Your task to perform on an android device: set an alarm Image 0: 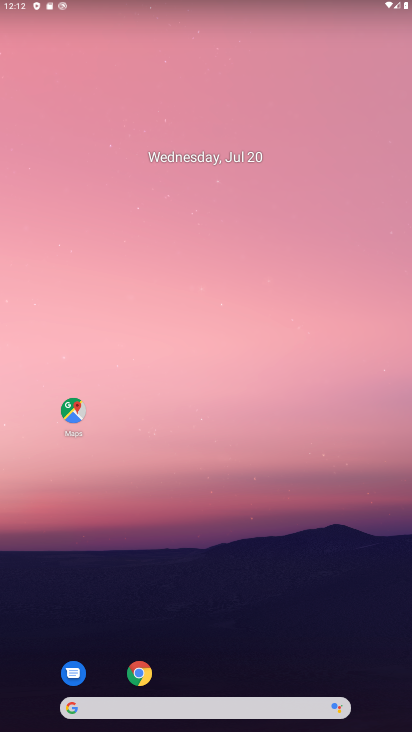
Step 0: drag from (217, 687) to (190, 166)
Your task to perform on an android device: set an alarm Image 1: 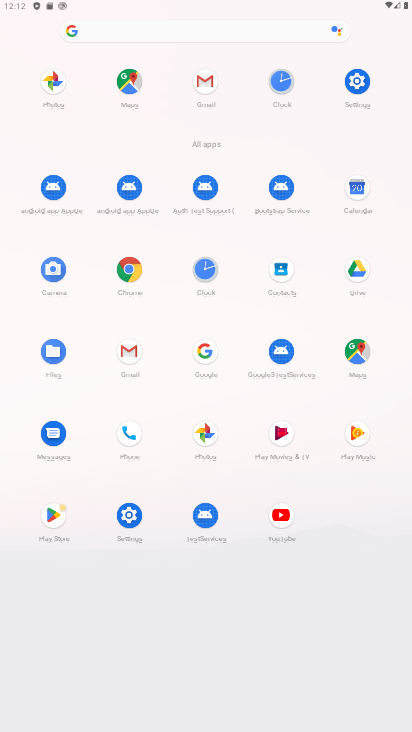
Step 1: click (206, 267)
Your task to perform on an android device: set an alarm Image 2: 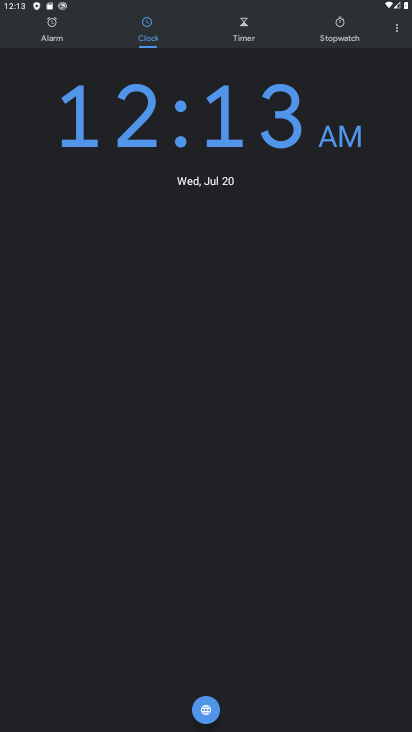
Step 2: click (52, 35)
Your task to perform on an android device: set an alarm Image 3: 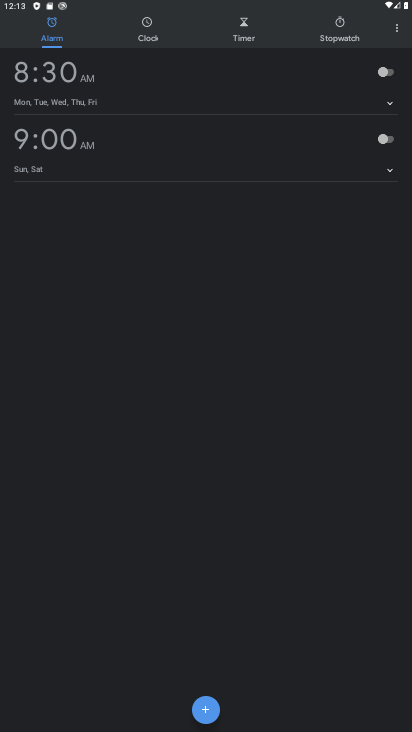
Step 3: click (209, 717)
Your task to perform on an android device: set an alarm Image 4: 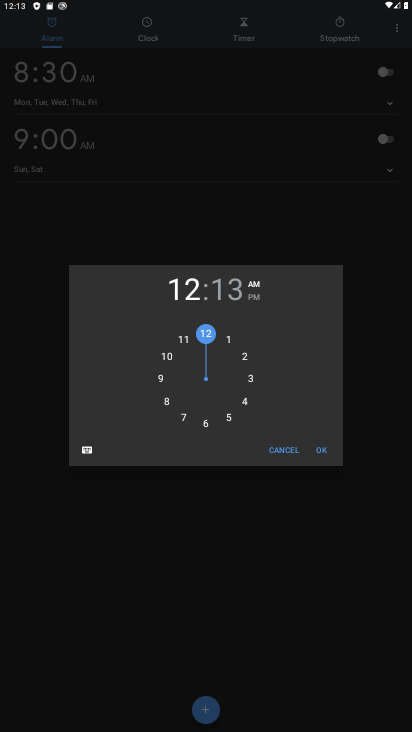
Step 4: click (328, 453)
Your task to perform on an android device: set an alarm Image 5: 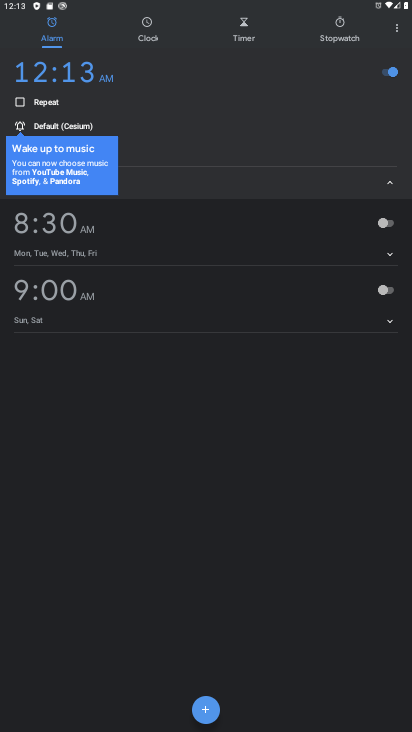
Step 5: task complete